Your task to perform on an android device: Toggle the flashlight Image 0: 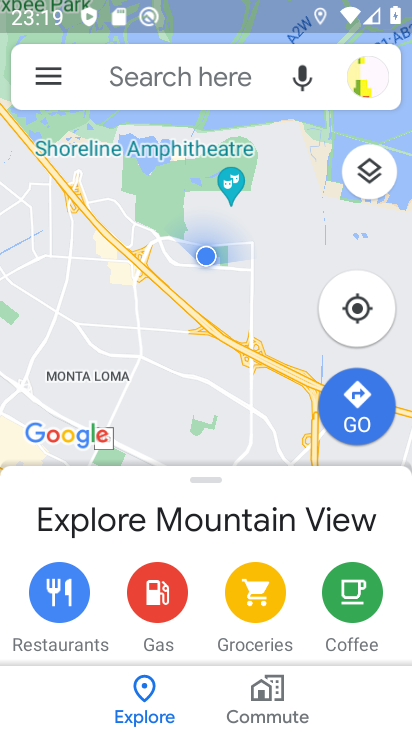
Step 0: press home button
Your task to perform on an android device: Toggle the flashlight Image 1: 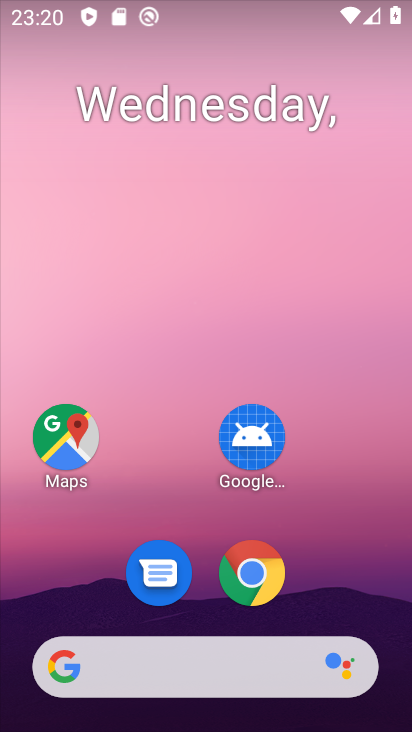
Step 1: drag from (315, 546) to (285, 56)
Your task to perform on an android device: Toggle the flashlight Image 2: 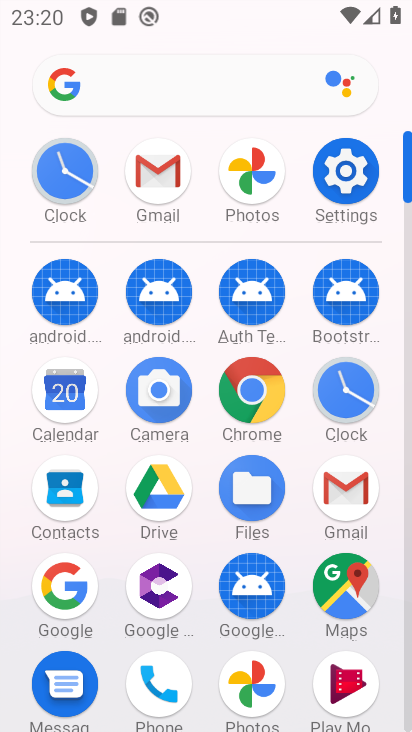
Step 2: click (344, 175)
Your task to perform on an android device: Toggle the flashlight Image 3: 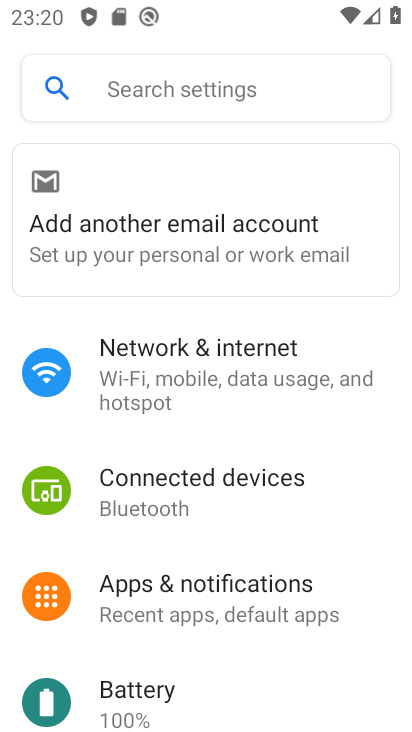
Step 3: drag from (209, 458) to (251, 366)
Your task to perform on an android device: Toggle the flashlight Image 4: 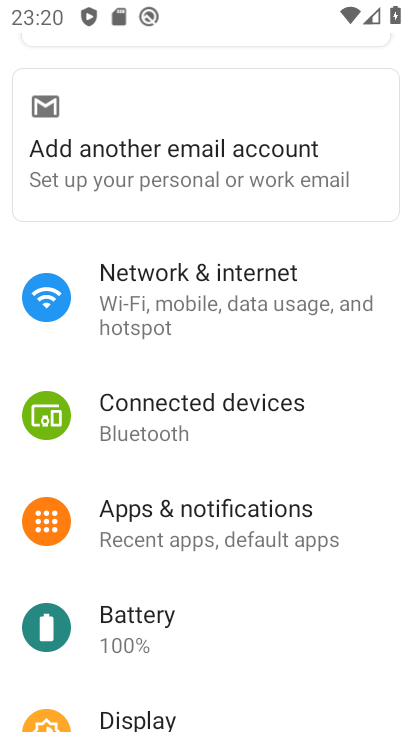
Step 4: drag from (210, 584) to (261, 450)
Your task to perform on an android device: Toggle the flashlight Image 5: 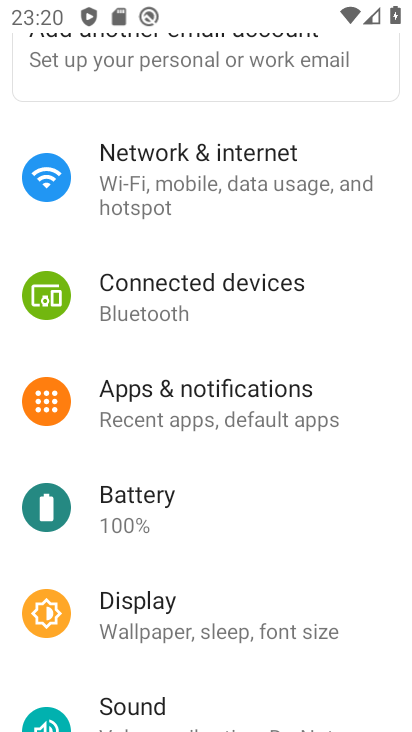
Step 5: drag from (221, 549) to (246, 436)
Your task to perform on an android device: Toggle the flashlight Image 6: 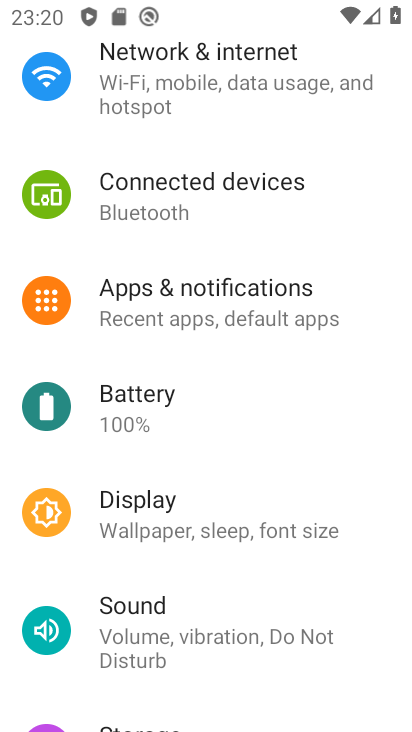
Step 6: drag from (232, 474) to (284, 370)
Your task to perform on an android device: Toggle the flashlight Image 7: 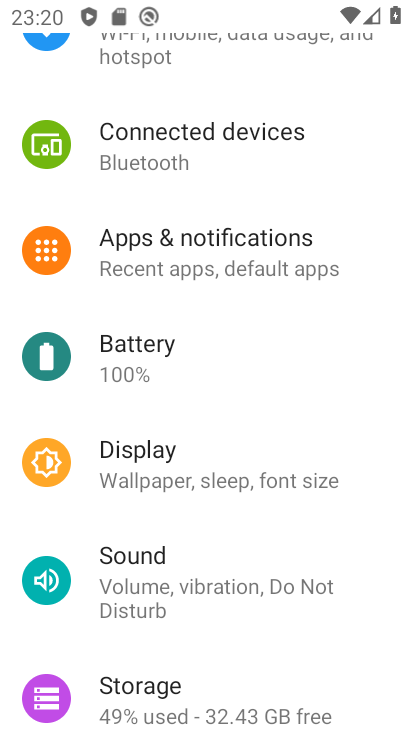
Step 7: click (205, 472)
Your task to perform on an android device: Toggle the flashlight Image 8: 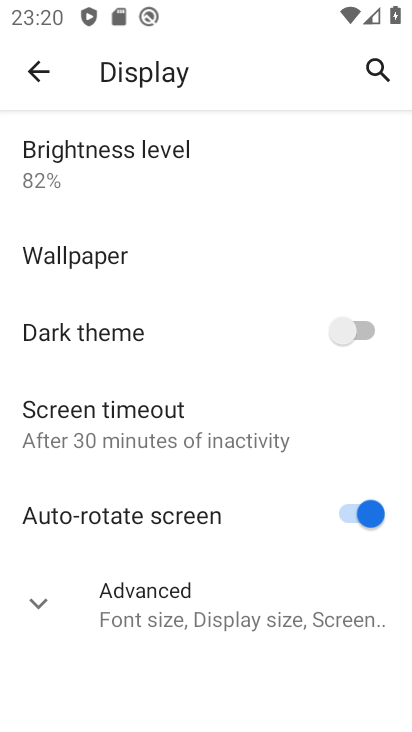
Step 8: click (145, 428)
Your task to perform on an android device: Toggle the flashlight Image 9: 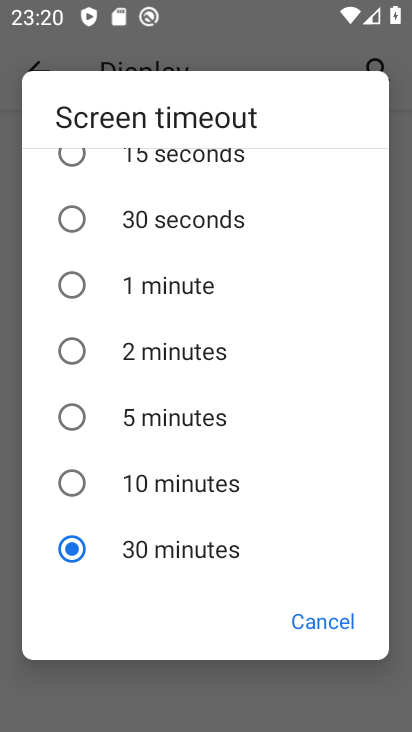
Step 9: click (173, 290)
Your task to perform on an android device: Toggle the flashlight Image 10: 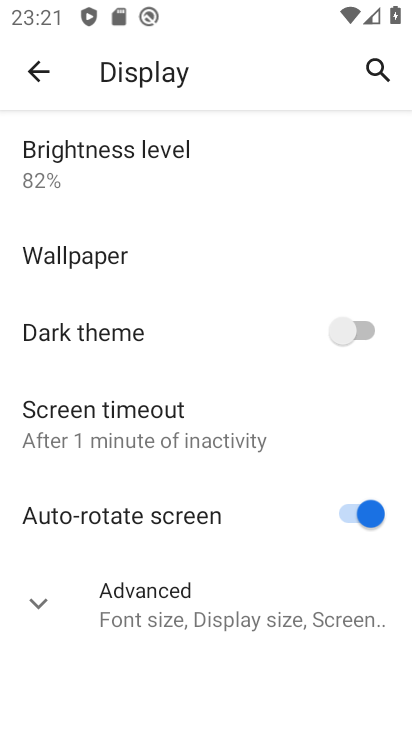
Step 10: task complete